Your task to perform on an android device: turn off location history Image 0: 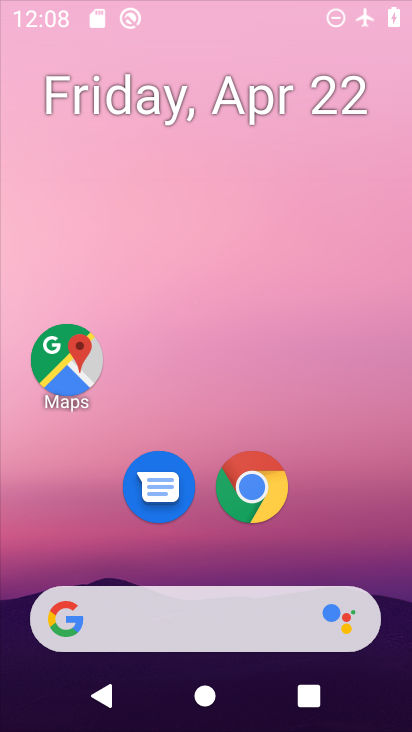
Step 0: drag from (297, 245) to (292, 173)
Your task to perform on an android device: turn off location history Image 1: 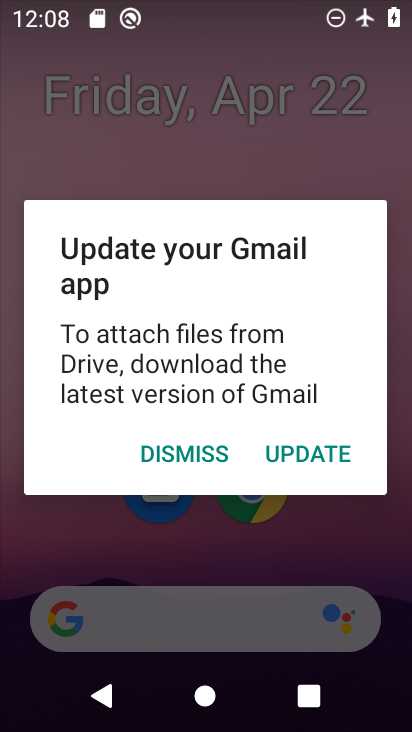
Step 1: press home button
Your task to perform on an android device: turn off location history Image 2: 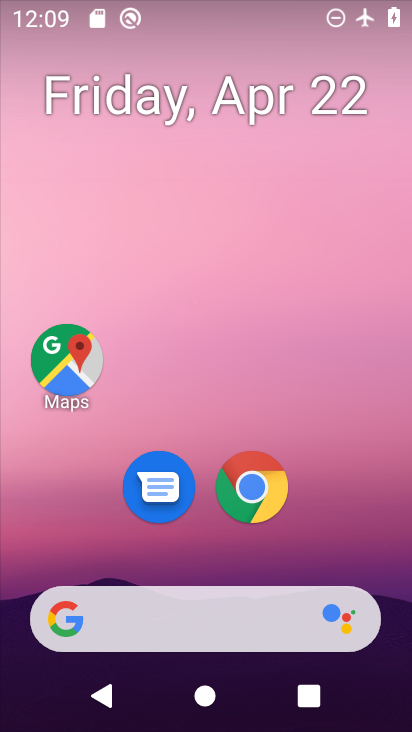
Step 2: drag from (324, 323) to (324, 100)
Your task to perform on an android device: turn off location history Image 3: 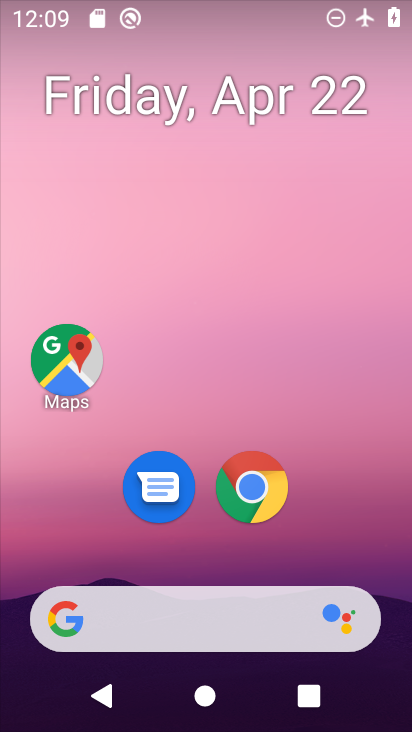
Step 3: drag from (327, 540) to (316, 210)
Your task to perform on an android device: turn off location history Image 4: 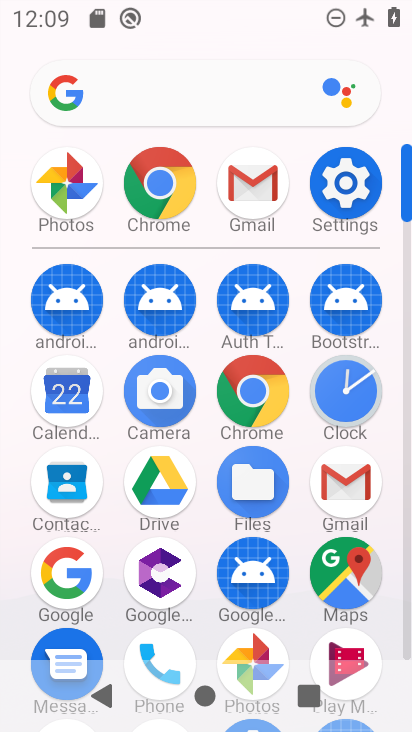
Step 4: click (349, 167)
Your task to perform on an android device: turn off location history Image 5: 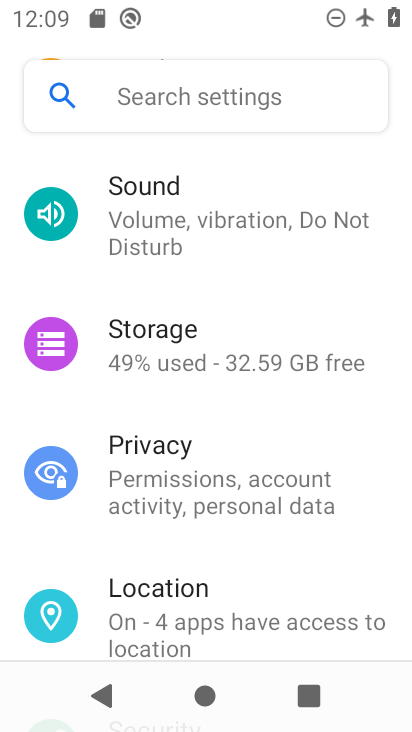
Step 5: drag from (222, 609) to (237, 363)
Your task to perform on an android device: turn off location history Image 6: 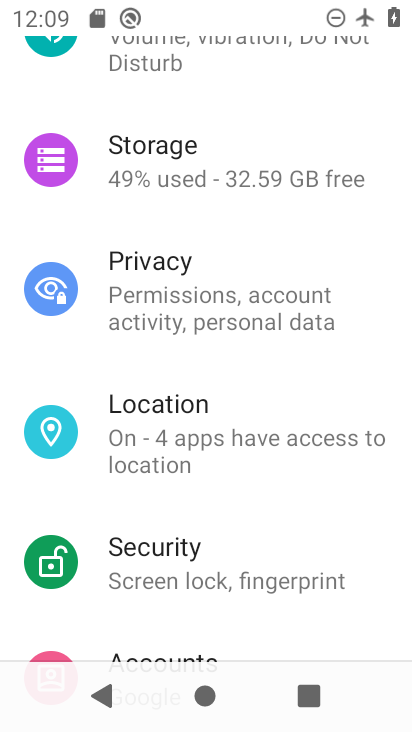
Step 6: click (184, 411)
Your task to perform on an android device: turn off location history Image 7: 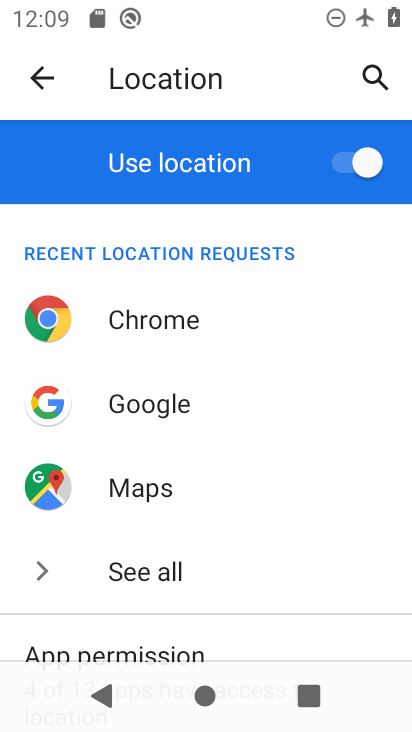
Step 7: drag from (234, 589) to (274, 236)
Your task to perform on an android device: turn off location history Image 8: 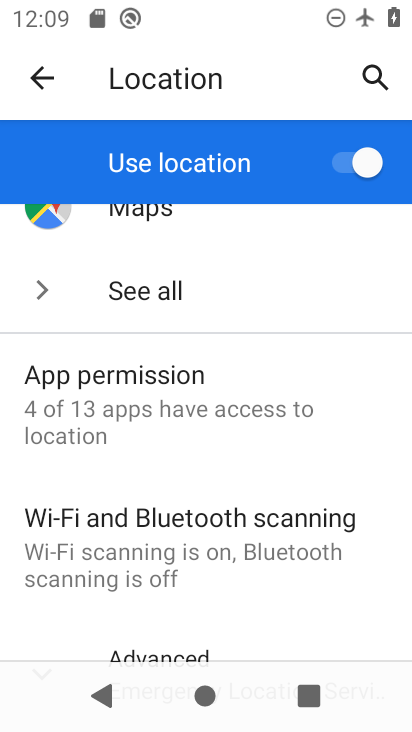
Step 8: drag from (220, 612) to (260, 211)
Your task to perform on an android device: turn off location history Image 9: 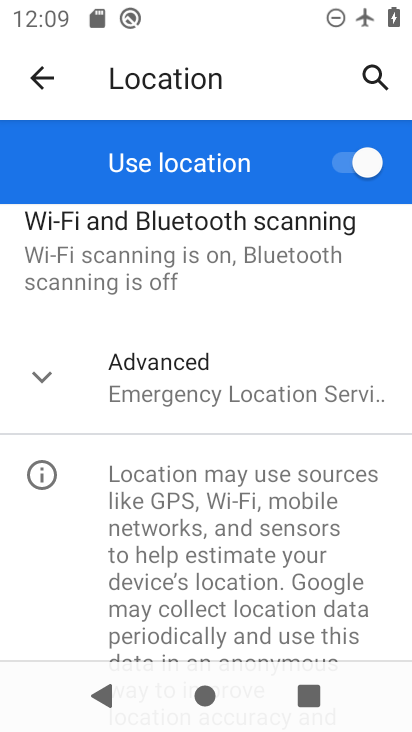
Step 9: click (195, 388)
Your task to perform on an android device: turn off location history Image 10: 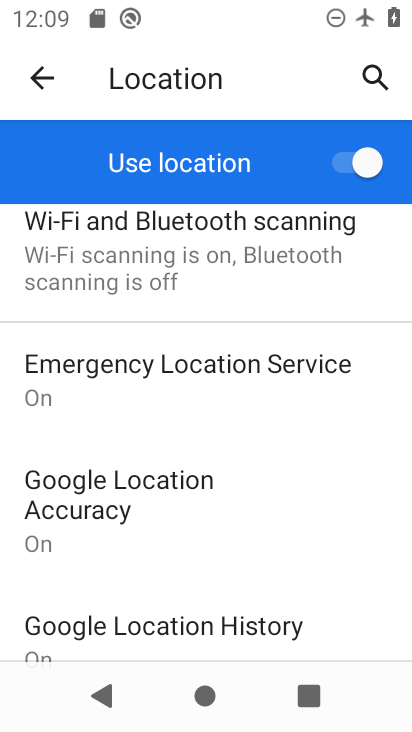
Step 10: drag from (173, 563) to (244, 366)
Your task to perform on an android device: turn off location history Image 11: 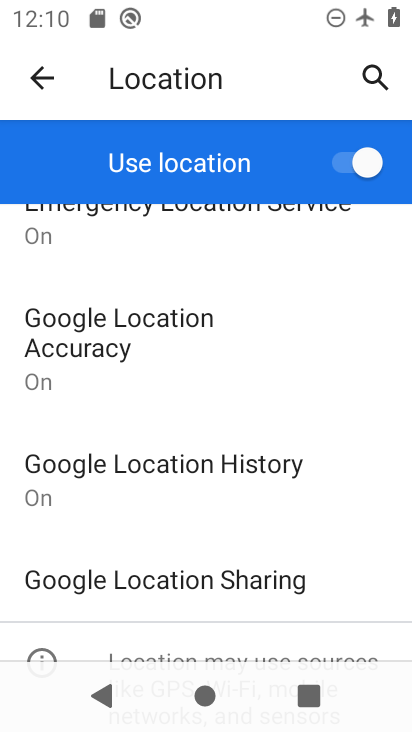
Step 11: click (213, 480)
Your task to perform on an android device: turn off location history Image 12: 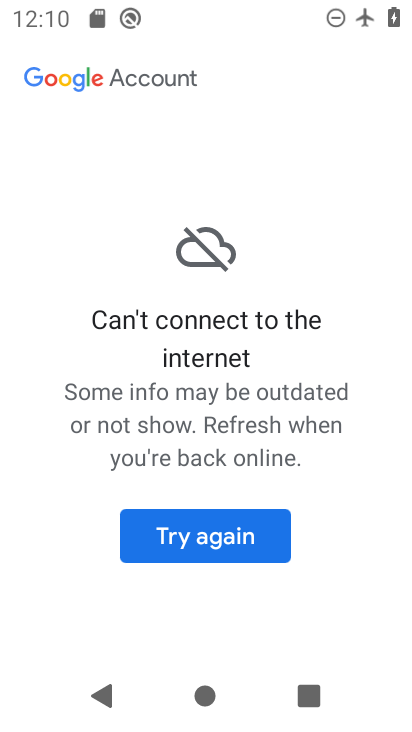
Step 12: click (200, 539)
Your task to perform on an android device: turn off location history Image 13: 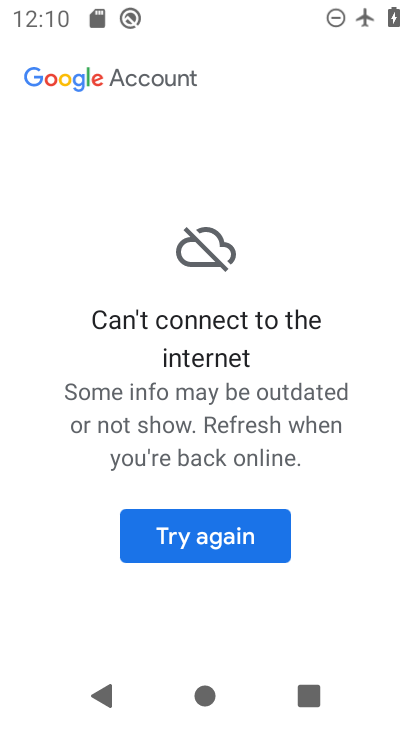
Step 13: task complete